Your task to perform on an android device: Do I have any events tomorrow? Image 0: 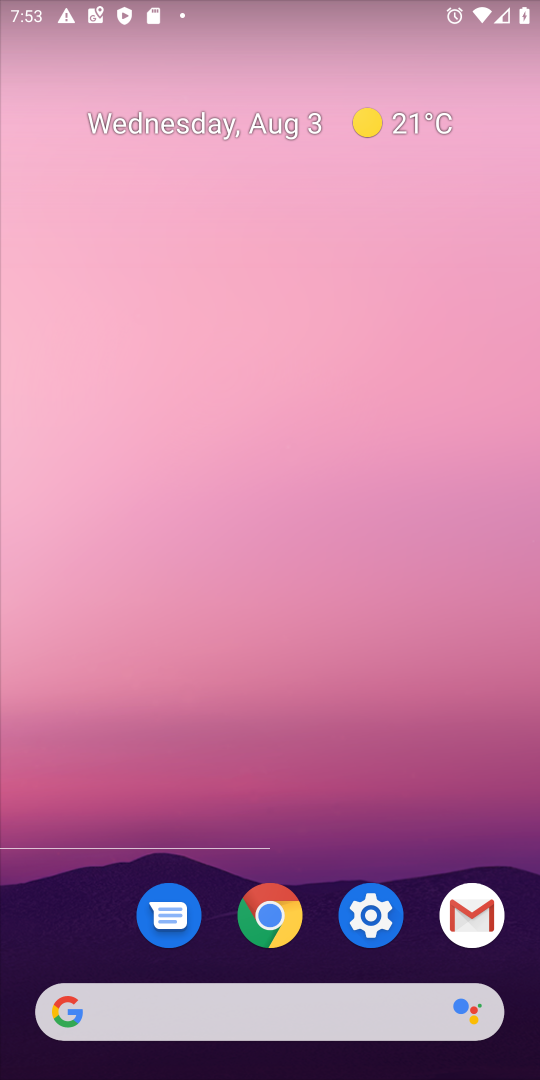
Step 0: click (294, 1005)
Your task to perform on an android device: Do I have any events tomorrow? Image 1: 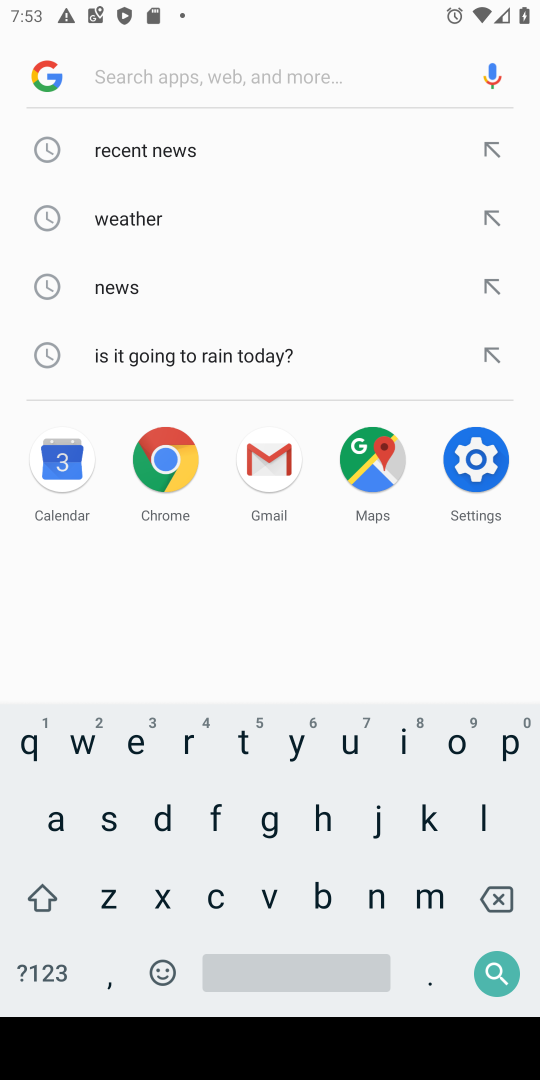
Step 1: click (48, 472)
Your task to perform on an android device: Do I have any events tomorrow? Image 2: 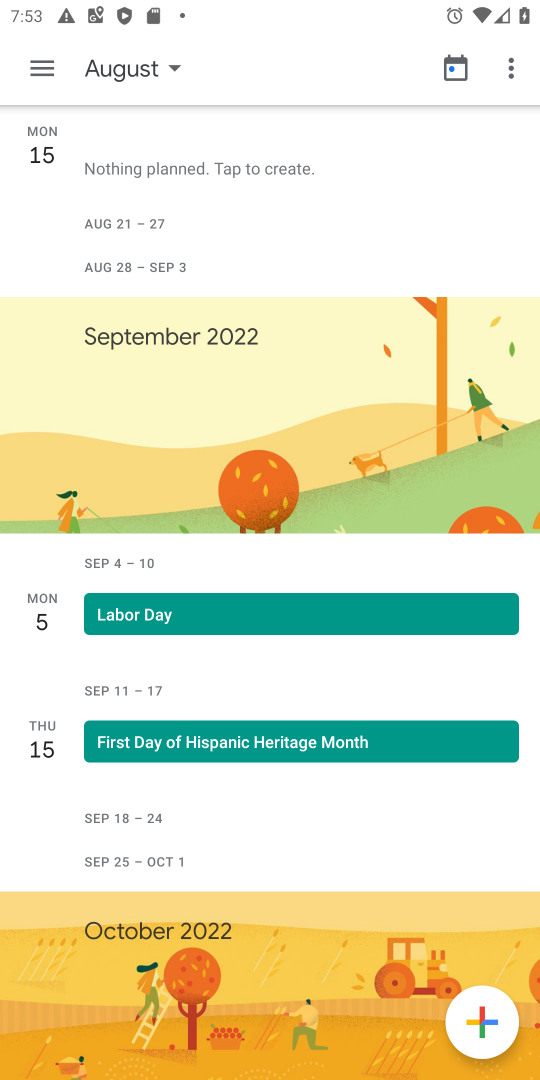
Step 2: click (20, 76)
Your task to perform on an android device: Do I have any events tomorrow? Image 3: 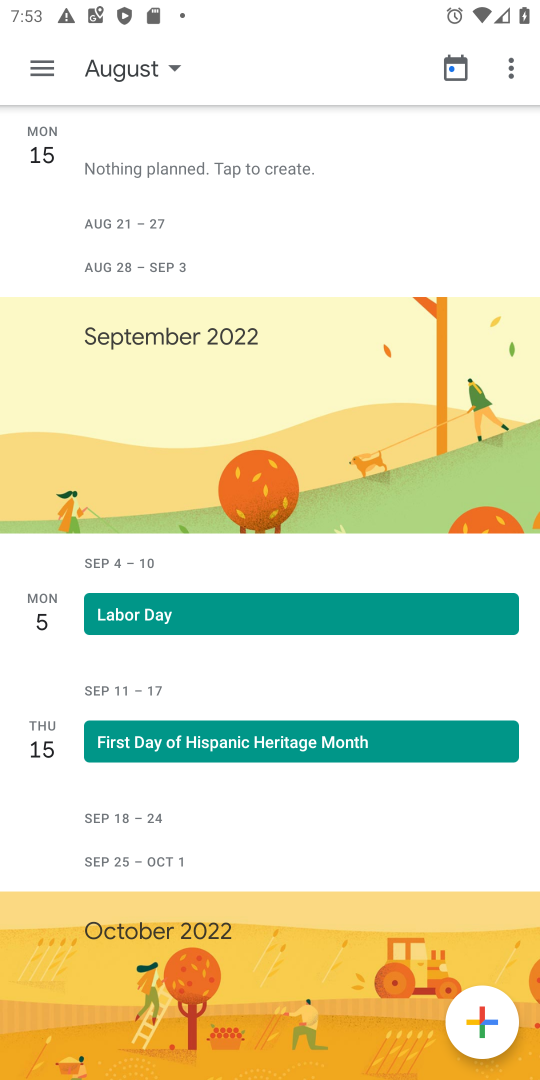
Step 3: click (65, 85)
Your task to perform on an android device: Do I have any events tomorrow? Image 4: 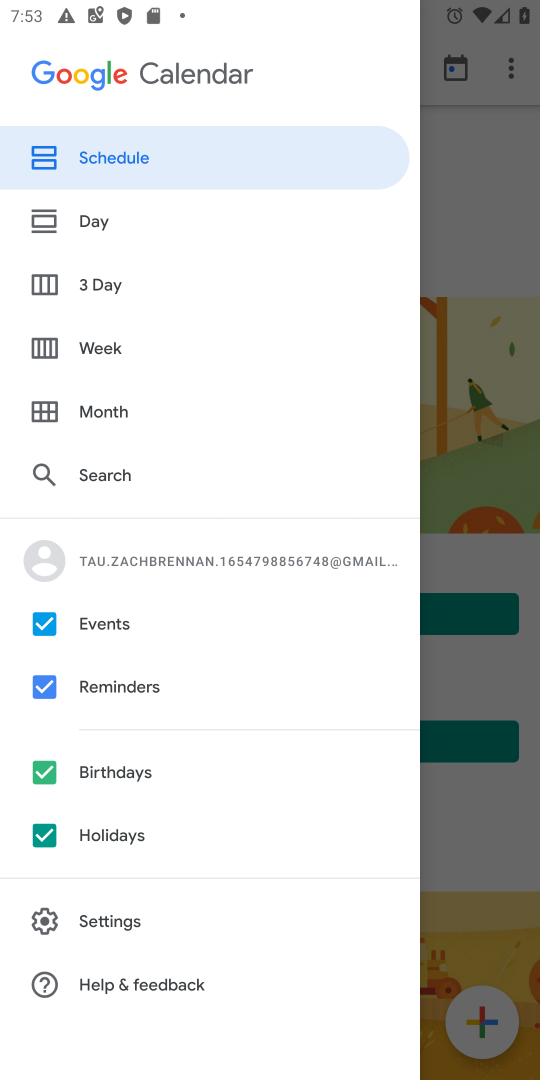
Step 4: click (127, 415)
Your task to perform on an android device: Do I have any events tomorrow? Image 5: 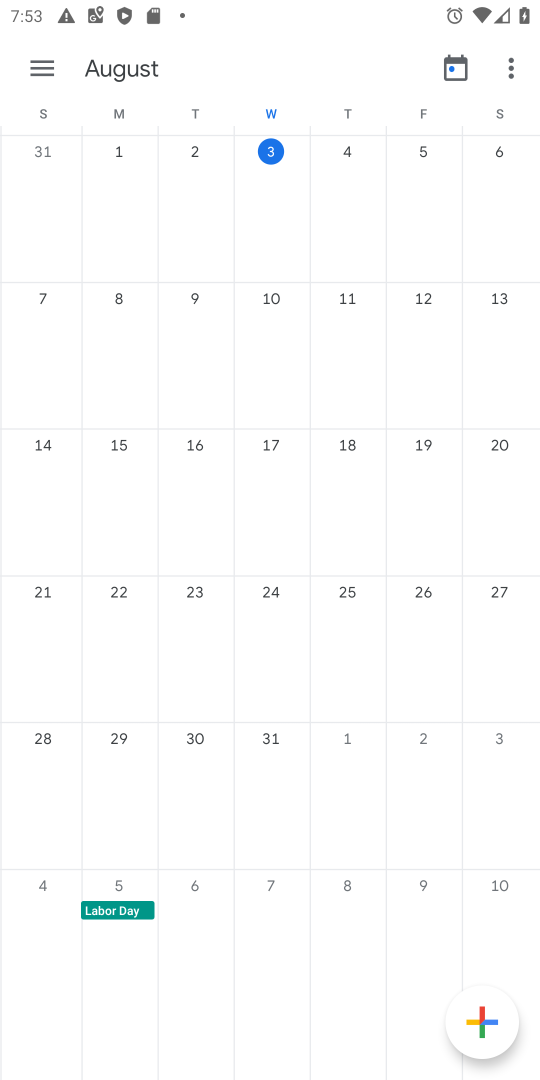
Step 5: click (346, 186)
Your task to perform on an android device: Do I have any events tomorrow? Image 6: 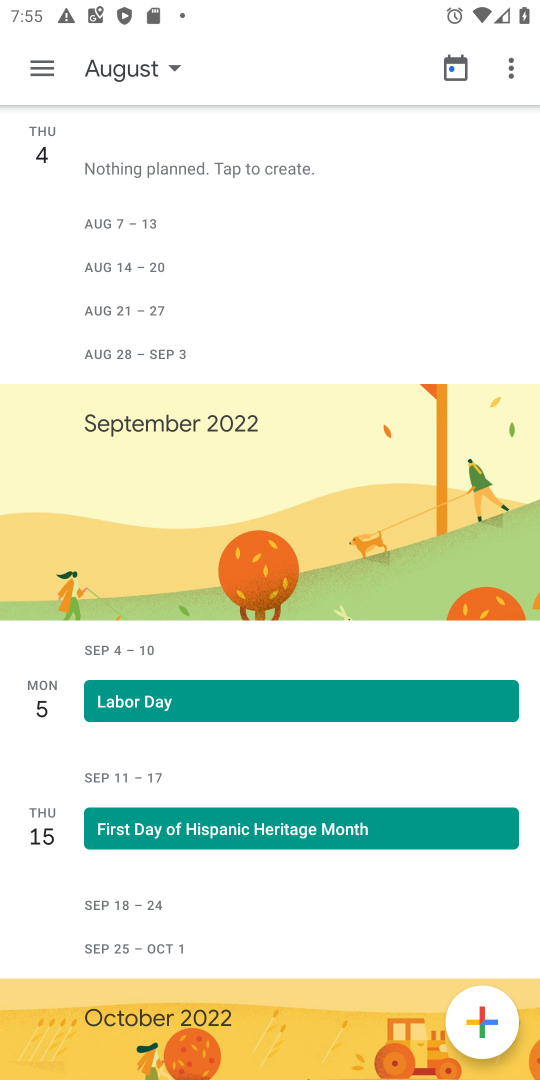
Step 6: task complete